Your task to perform on an android device: toggle sleep mode Image 0: 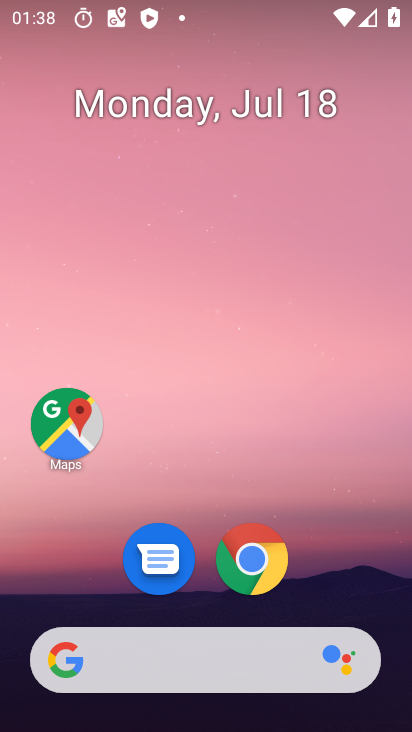
Step 0: drag from (76, 503) to (173, 43)
Your task to perform on an android device: toggle sleep mode Image 1: 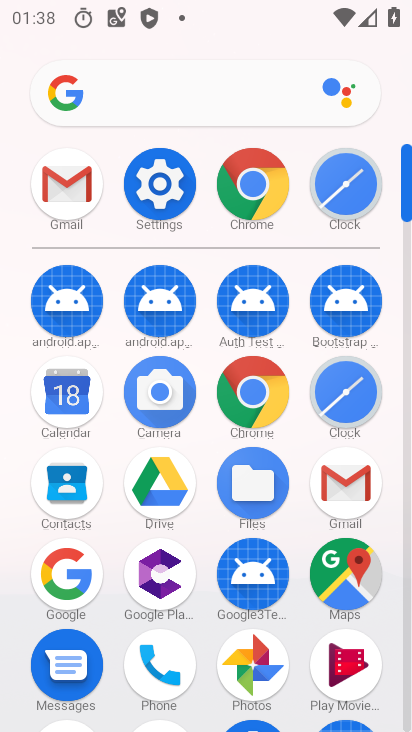
Step 1: click (153, 179)
Your task to perform on an android device: toggle sleep mode Image 2: 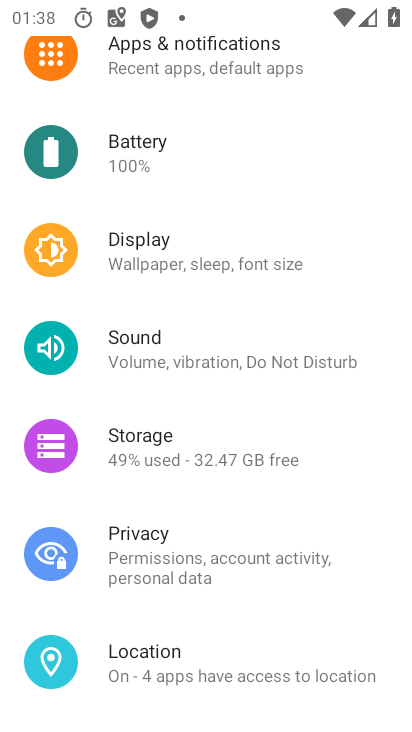
Step 2: drag from (197, 142) to (204, 730)
Your task to perform on an android device: toggle sleep mode Image 3: 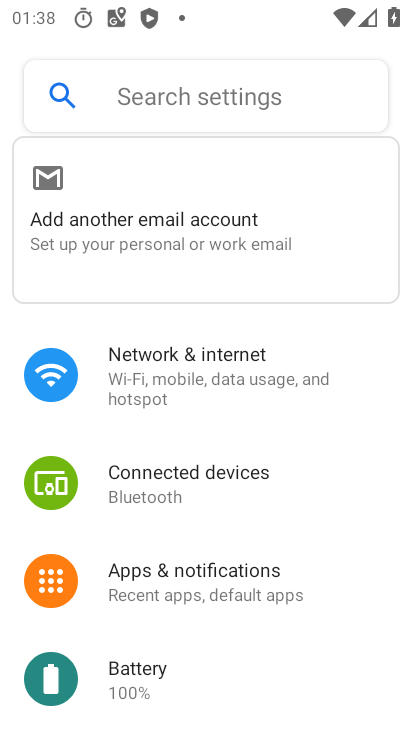
Step 3: click (154, 73)
Your task to perform on an android device: toggle sleep mode Image 4: 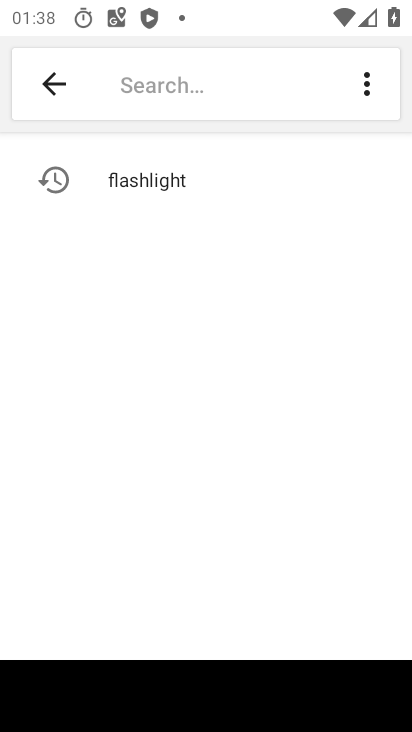
Step 4: type "sleep mode"
Your task to perform on an android device: toggle sleep mode Image 5: 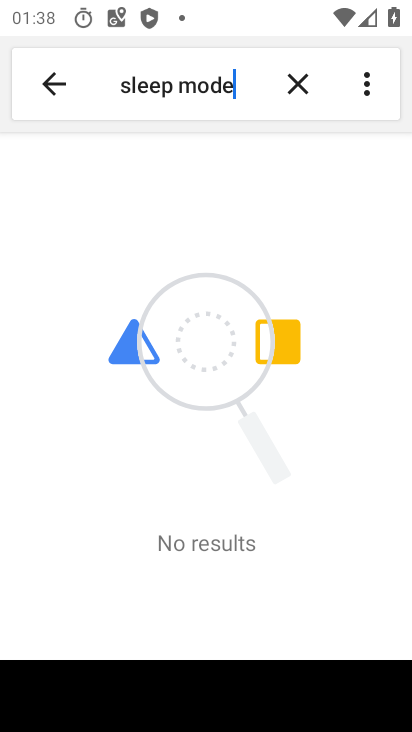
Step 5: task complete